Your task to perform on an android device: turn off data saver in the chrome app Image 0: 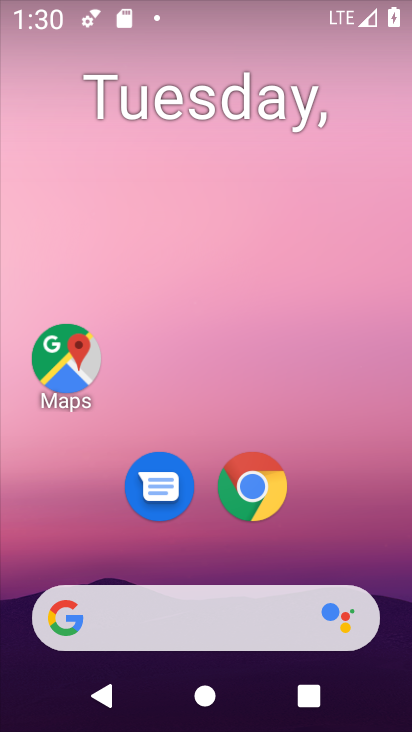
Step 0: press home button
Your task to perform on an android device: turn off data saver in the chrome app Image 1: 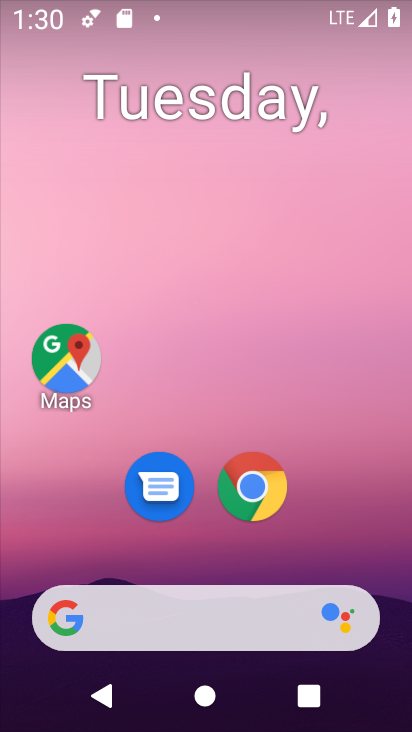
Step 1: drag from (363, 552) to (341, 125)
Your task to perform on an android device: turn off data saver in the chrome app Image 2: 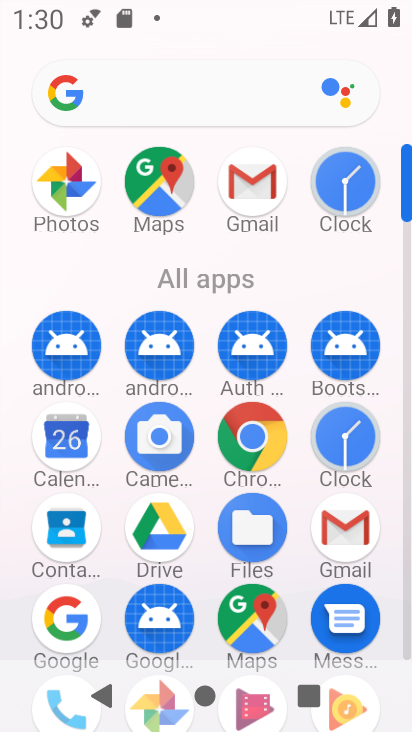
Step 2: click (260, 440)
Your task to perform on an android device: turn off data saver in the chrome app Image 3: 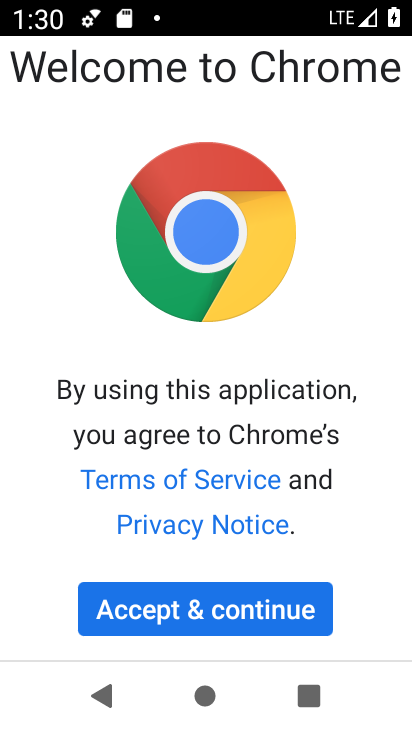
Step 3: click (269, 612)
Your task to perform on an android device: turn off data saver in the chrome app Image 4: 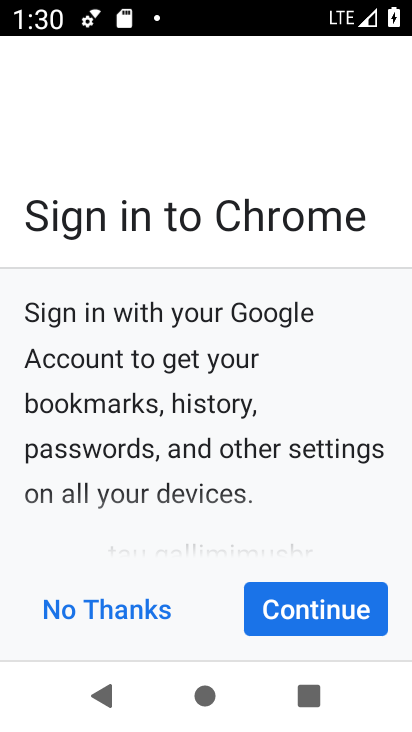
Step 4: click (296, 615)
Your task to perform on an android device: turn off data saver in the chrome app Image 5: 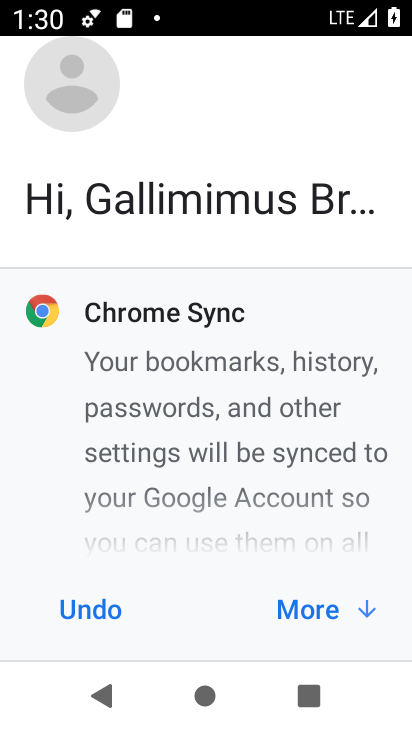
Step 5: click (296, 615)
Your task to perform on an android device: turn off data saver in the chrome app Image 6: 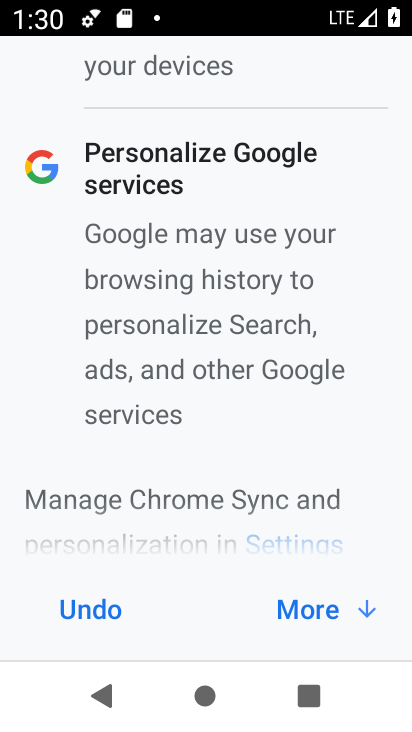
Step 6: click (296, 615)
Your task to perform on an android device: turn off data saver in the chrome app Image 7: 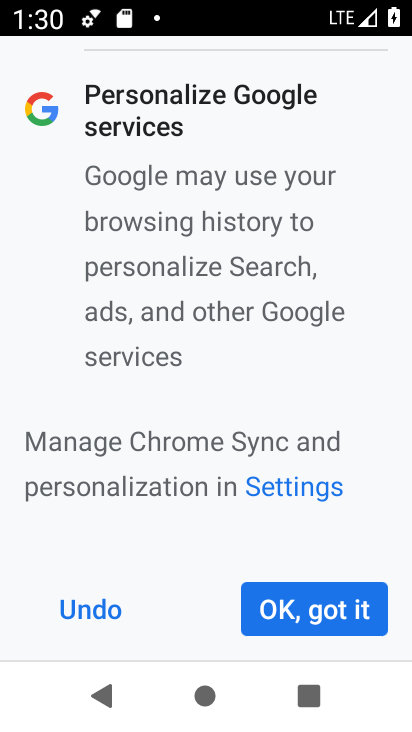
Step 7: click (337, 612)
Your task to perform on an android device: turn off data saver in the chrome app Image 8: 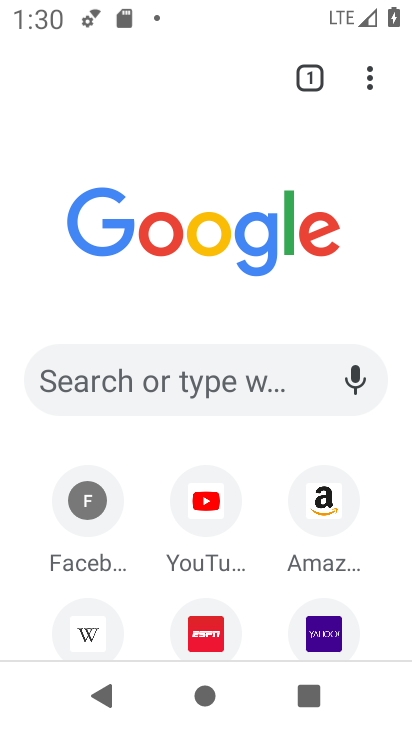
Step 8: click (367, 83)
Your task to perform on an android device: turn off data saver in the chrome app Image 9: 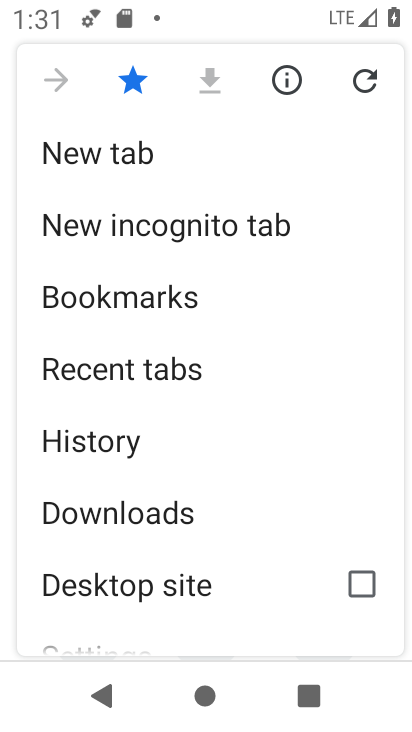
Step 9: drag from (260, 557) to (271, 479)
Your task to perform on an android device: turn off data saver in the chrome app Image 10: 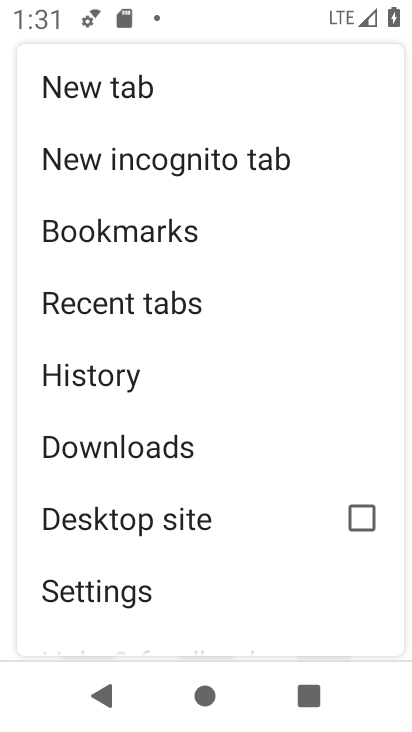
Step 10: drag from (251, 567) to (258, 451)
Your task to perform on an android device: turn off data saver in the chrome app Image 11: 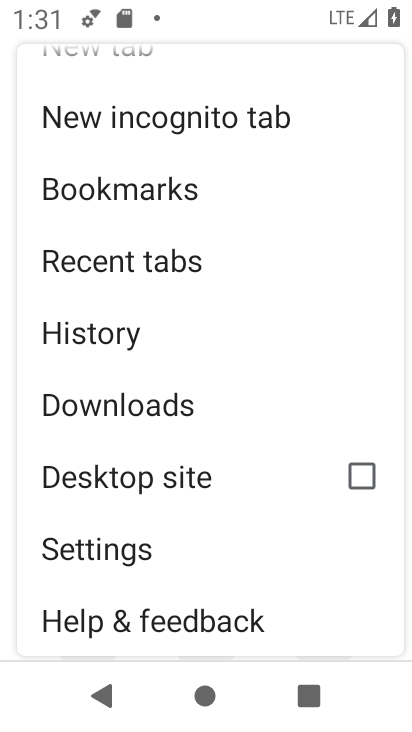
Step 11: click (184, 544)
Your task to perform on an android device: turn off data saver in the chrome app Image 12: 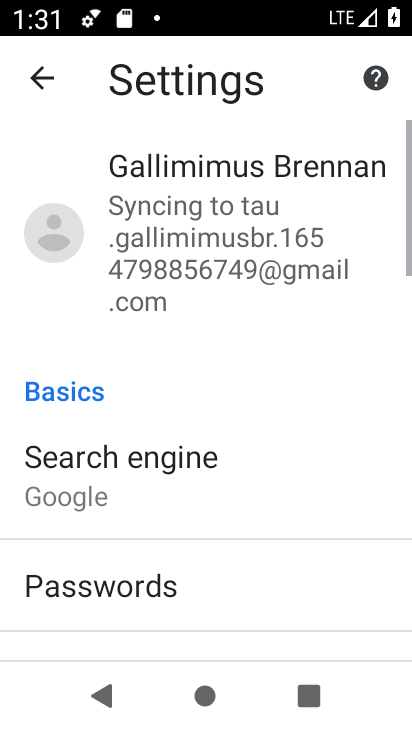
Step 12: drag from (287, 537) to (287, 449)
Your task to perform on an android device: turn off data saver in the chrome app Image 13: 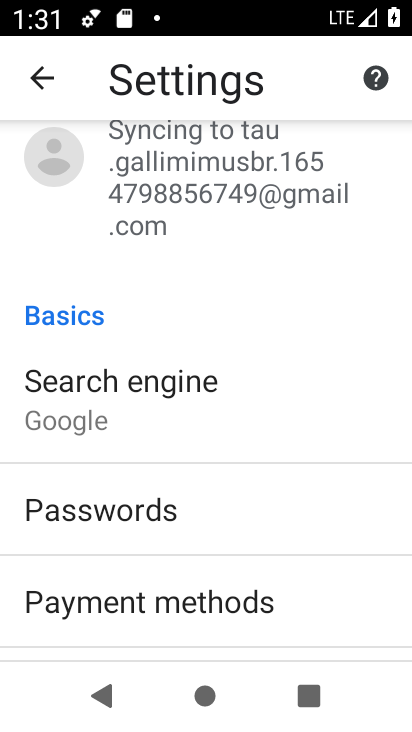
Step 13: drag from (320, 581) to (322, 484)
Your task to perform on an android device: turn off data saver in the chrome app Image 14: 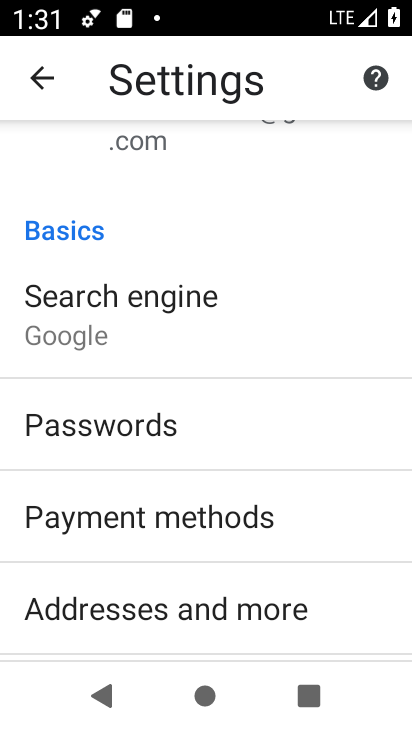
Step 14: drag from (337, 589) to (338, 494)
Your task to perform on an android device: turn off data saver in the chrome app Image 15: 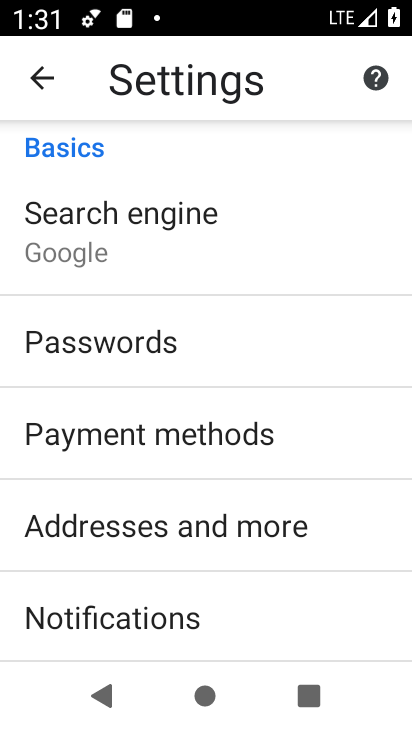
Step 15: drag from (338, 592) to (341, 495)
Your task to perform on an android device: turn off data saver in the chrome app Image 16: 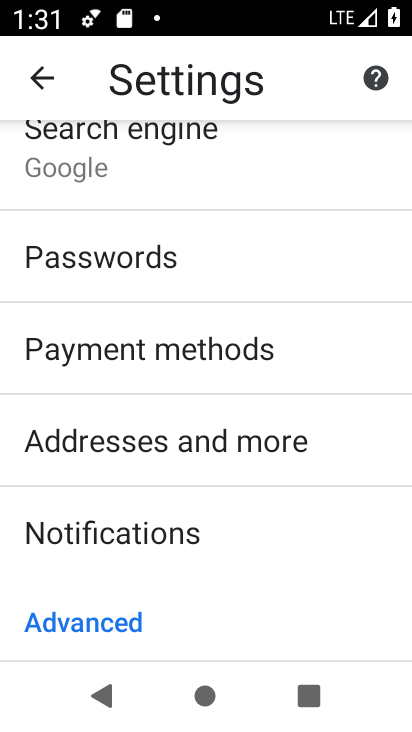
Step 16: drag from (312, 582) to (312, 495)
Your task to perform on an android device: turn off data saver in the chrome app Image 17: 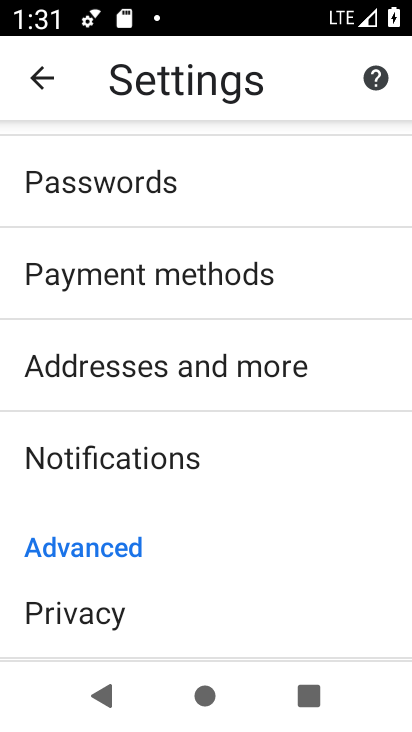
Step 17: drag from (279, 511) to (269, 397)
Your task to perform on an android device: turn off data saver in the chrome app Image 18: 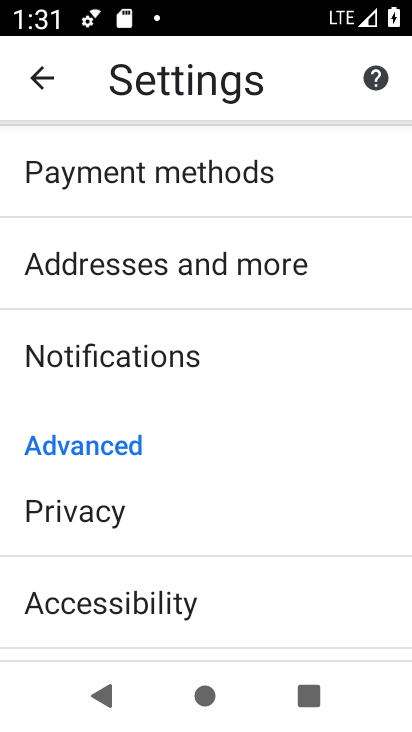
Step 18: drag from (253, 528) to (269, 428)
Your task to perform on an android device: turn off data saver in the chrome app Image 19: 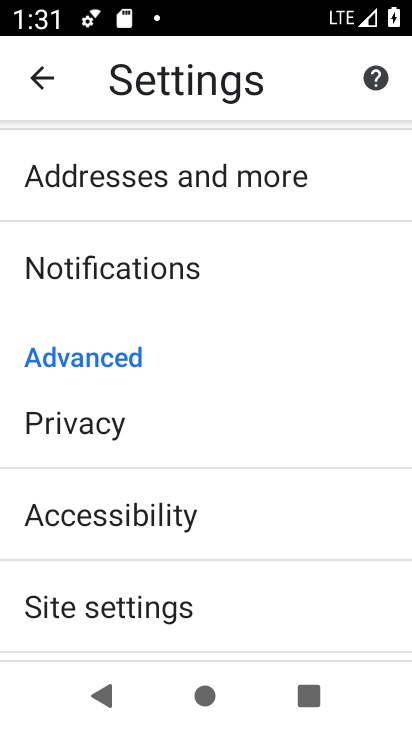
Step 19: drag from (265, 549) to (265, 432)
Your task to perform on an android device: turn off data saver in the chrome app Image 20: 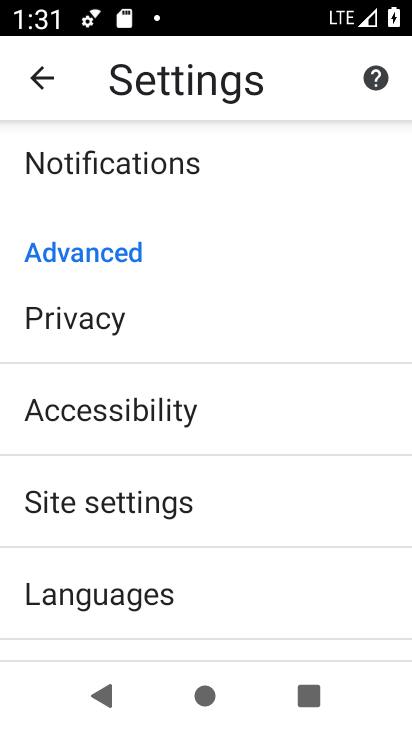
Step 20: drag from (258, 567) to (262, 390)
Your task to perform on an android device: turn off data saver in the chrome app Image 21: 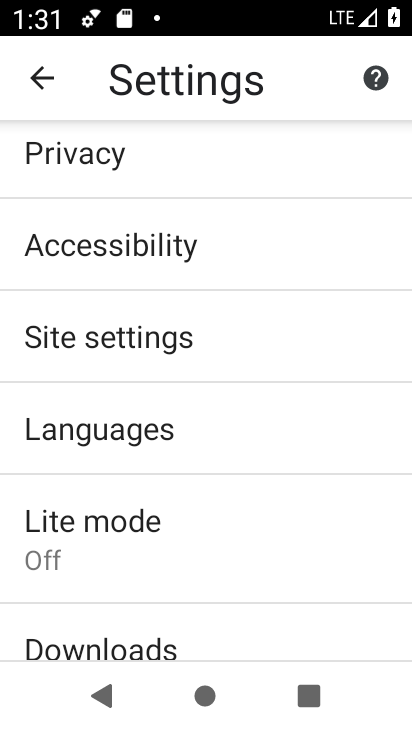
Step 21: click (253, 531)
Your task to perform on an android device: turn off data saver in the chrome app Image 22: 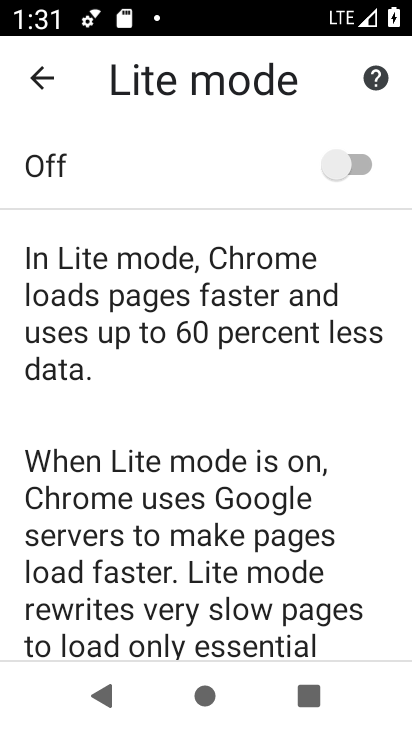
Step 22: task complete